Your task to perform on an android device: read, delete, or share a saved page in the chrome app Image 0: 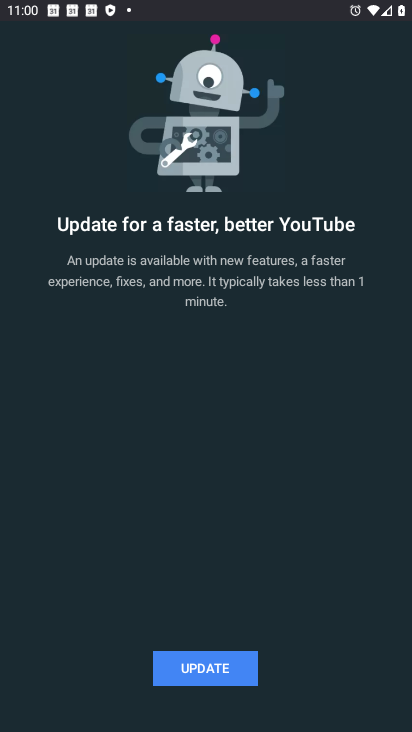
Step 0: press home button
Your task to perform on an android device: read, delete, or share a saved page in the chrome app Image 1: 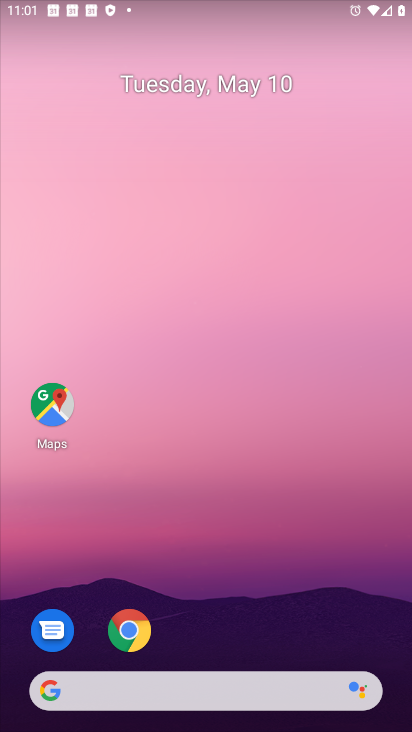
Step 1: click (137, 623)
Your task to perform on an android device: read, delete, or share a saved page in the chrome app Image 2: 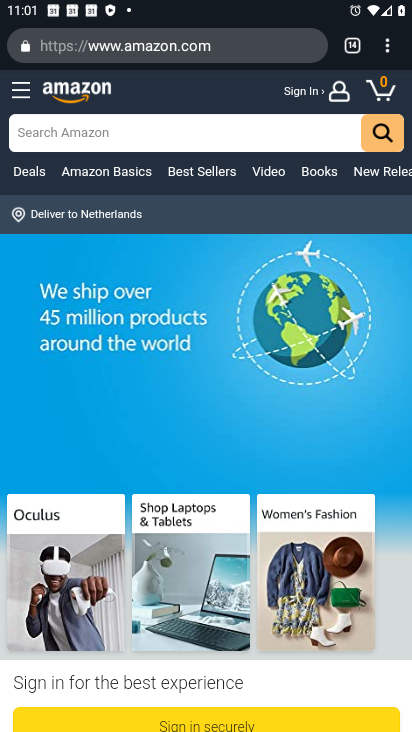
Step 2: click (391, 34)
Your task to perform on an android device: read, delete, or share a saved page in the chrome app Image 3: 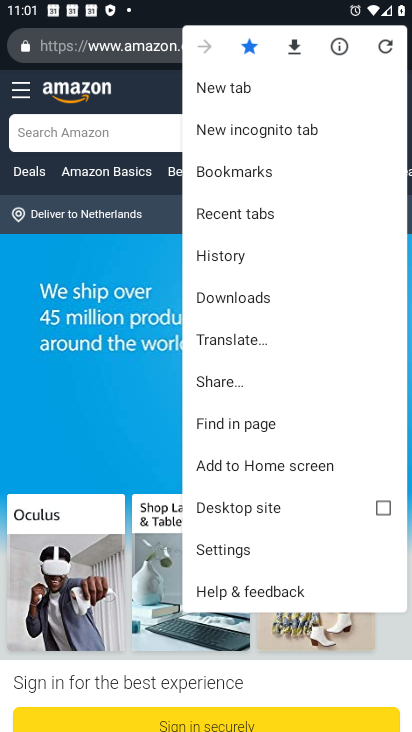
Step 3: click (236, 544)
Your task to perform on an android device: read, delete, or share a saved page in the chrome app Image 4: 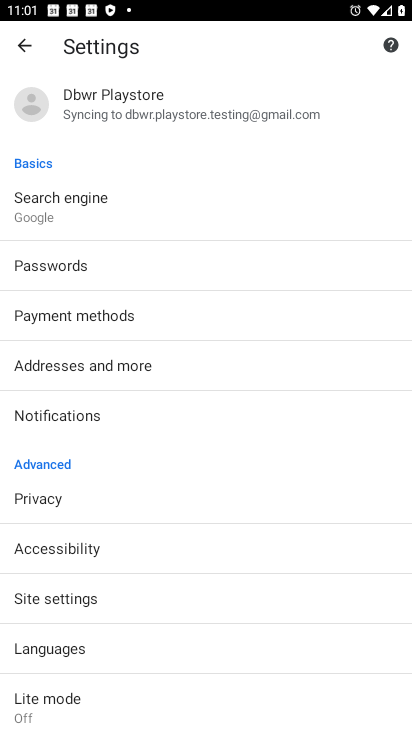
Step 4: drag from (154, 626) to (112, 212)
Your task to perform on an android device: read, delete, or share a saved page in the chrome app Image 5: 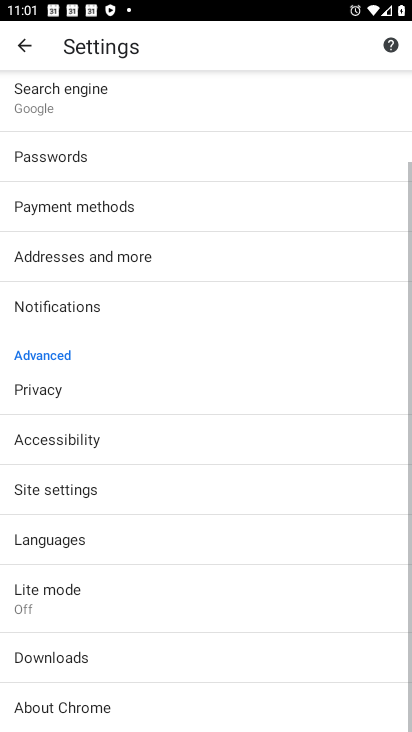
Step 5: click (52, 659)
Your task to perform on an android device: read, delete, or share a saved page in the chrome app Image 6: 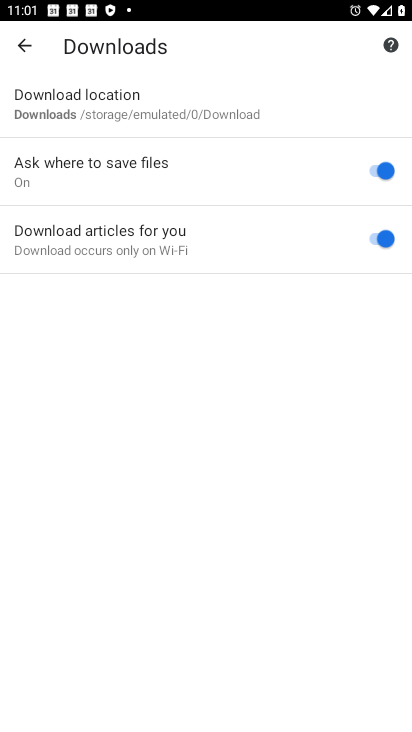
Step 6: task complete